Your task to perform on an android device: Search for nike dri-fit shirts on Nike Image 0: 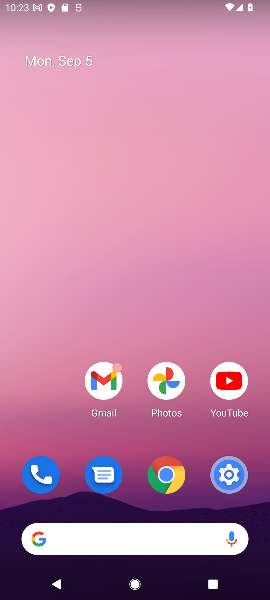
Step 0: click (121, 541)
Your task to perform on an android device: Search for nike dri-fit shirts on Nike Image 1: 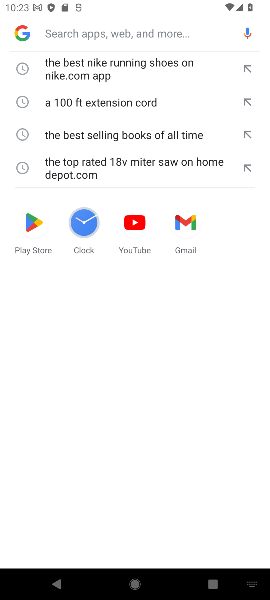
Step 1: type "nike dri-fit shirts on Nike"
Your task to perform on an android device: Search for nike dri-fit shirts on Nike Image 2: 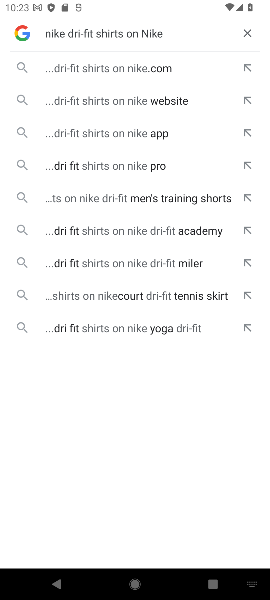
Step 2: click (136, 73)
Your task to perform on an android device: Search for nike dri-fit shirts on Nike Image 3: 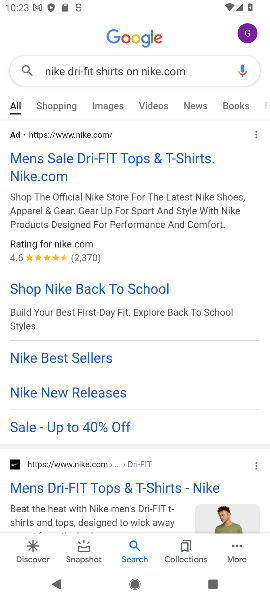
Step 3: click (160, 212)
Your task to perform on an android device: Search for nike dri-fit shirts on Nike Image 4: 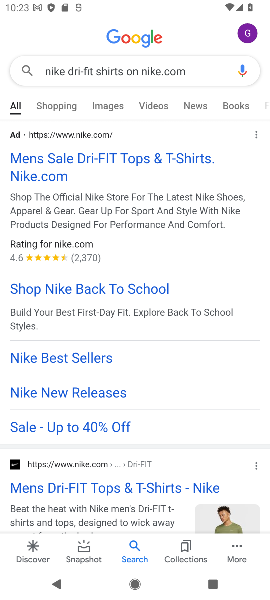
Step 4: task complete